Your task to perform on an android device: Go to privacy settings Image 0: 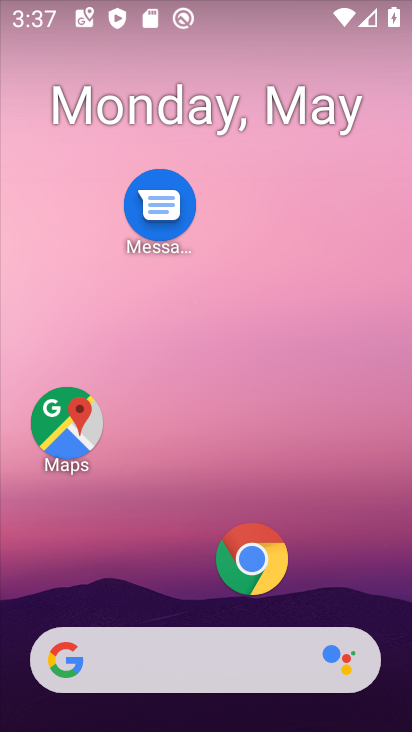
Step 0: drag from (168, 587) to (189, 206)
Your task to perform on an android device: Go to privacy settings Image 1: 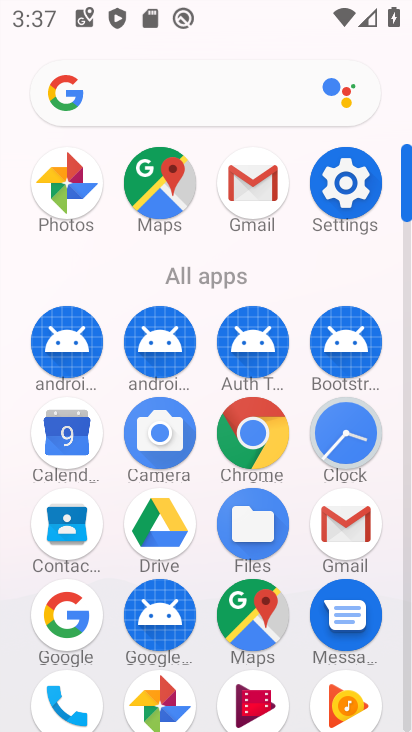
Step 1: click (347, 183)
Your task to perform on an android device: Go to privacy settings Image 2: 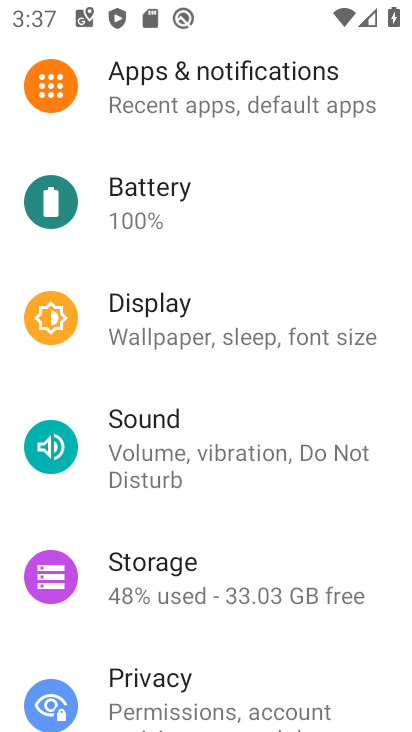
Step 2: click (171, 687)
Your task to perform on an android device: Go to privacy settings Image 3: 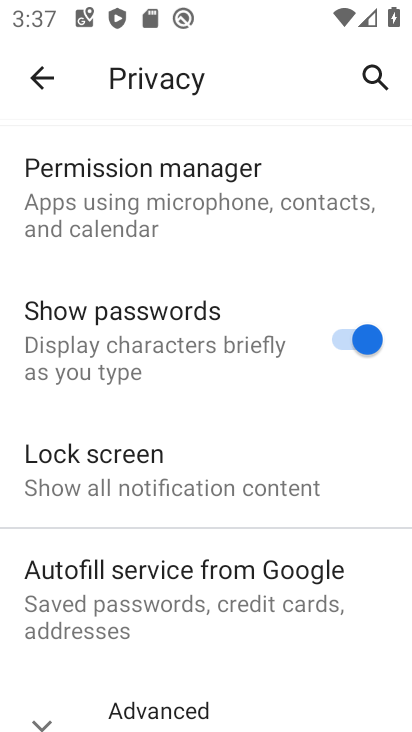
Step 3: task complete